Your task to perform on an android device: turn on data saver in the chrome app Image 0: 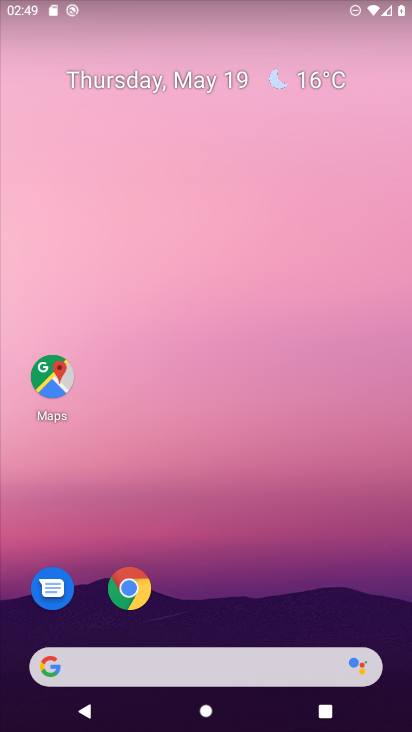
Step 0: click (136, 589)
Your task to perform on an android device: turn on data saver in the chrome app Image 1: 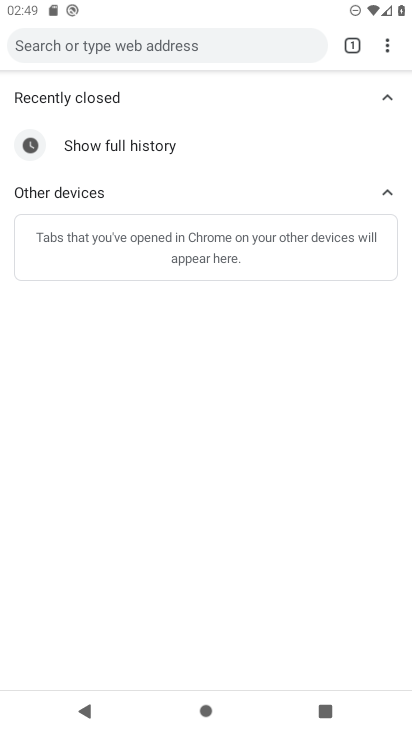
Step 1: click (386, 47)
Your task to perform on an android device: turn on data saver in the chrome app Image 2: 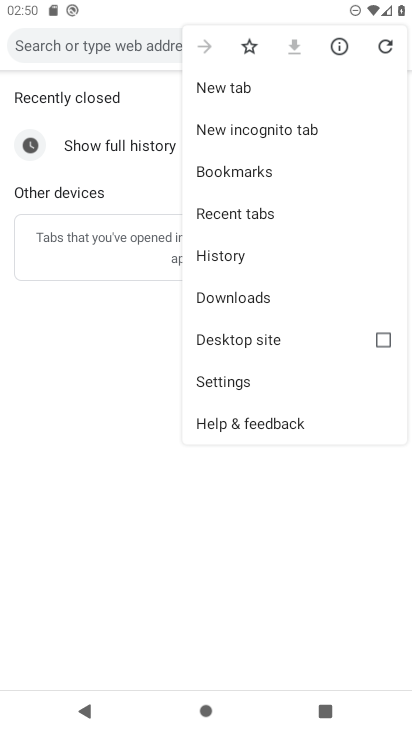
Step 2: click (230, 389)
Your task to perform on an android device: turn on data saver in the chrome app Image 3: 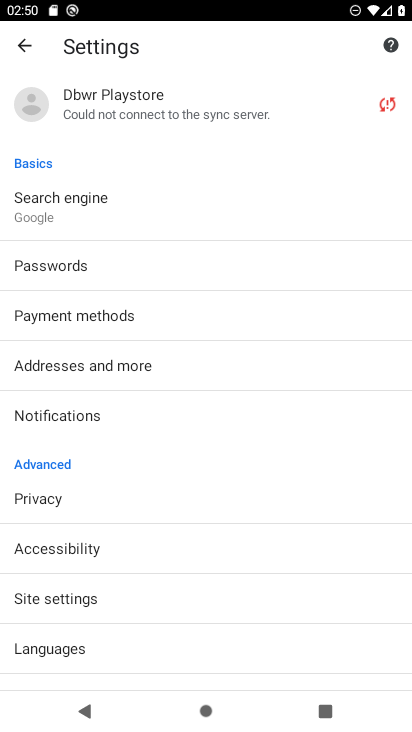
Step 3: drag from (97, 610) to (116, 407)
Your task to perform on an android device: turn on data saver in the chrome app Image 4: 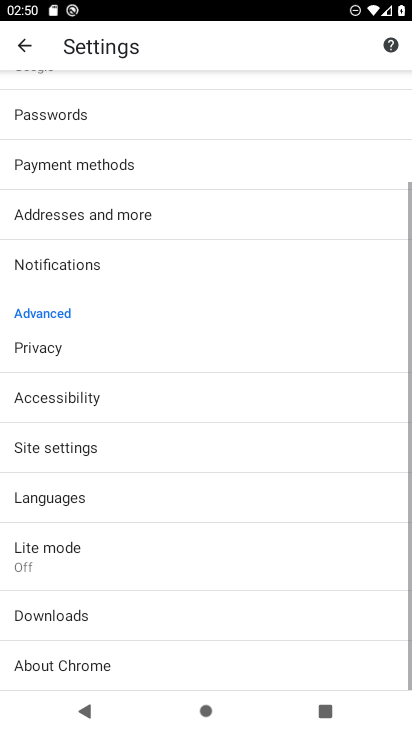
Step 4: click (25, 560)
Your task to perform on an android device: turn on data saver in the chrome app Image 5: 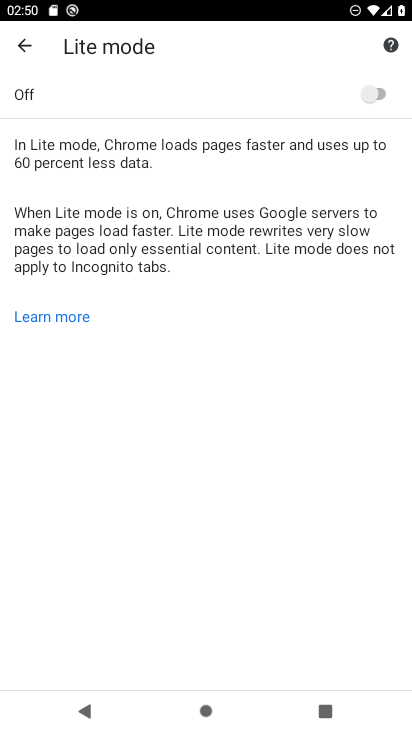
Step 5: click (373, 97)
Your task to perform on an android device: turn on data saver in the chrome app Image 6: 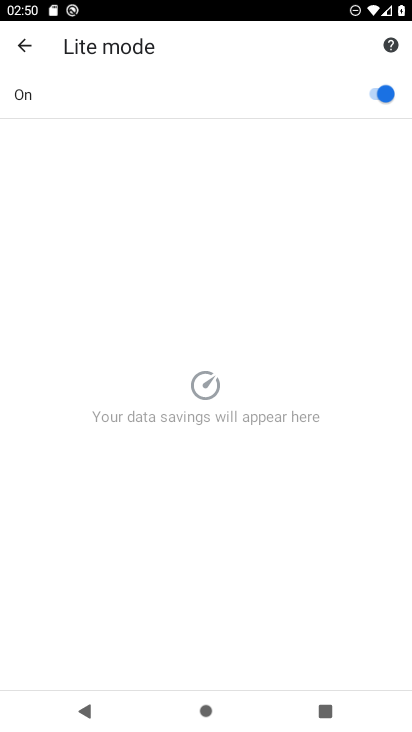
Step 6: task complete